Your task to perform on an android device: Show the shopping cart on amazon. Image 0: 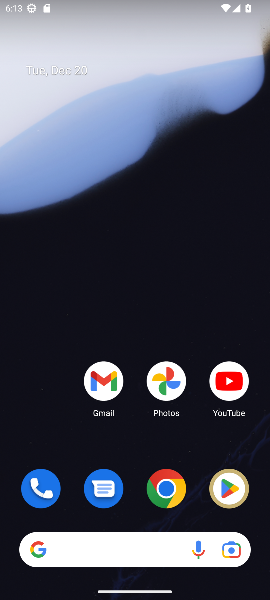
Step 0: press home button
Your task to perform on an android device: Show the shopping cart on amazon. Image 1: 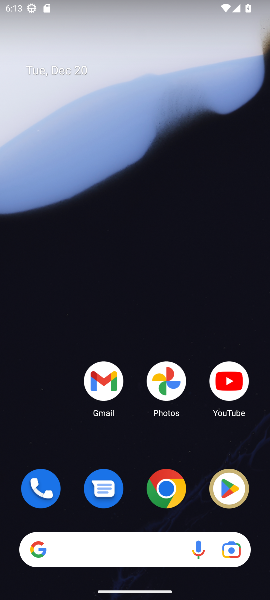
Step 1: drag from (49, 435) to (32, 39)
Your task to perform on an android device: Show the shopping cart on amazon. Image 2: 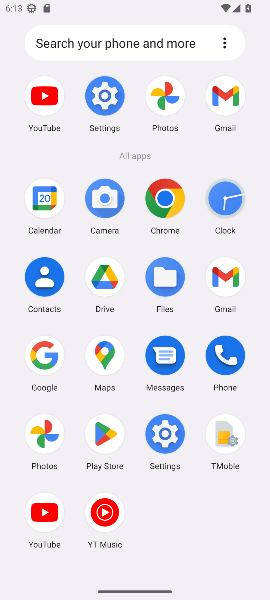
Step 2: click (34, 348)
Your task to perform on an android device: Show the shopping cart on amazon. Image 3: 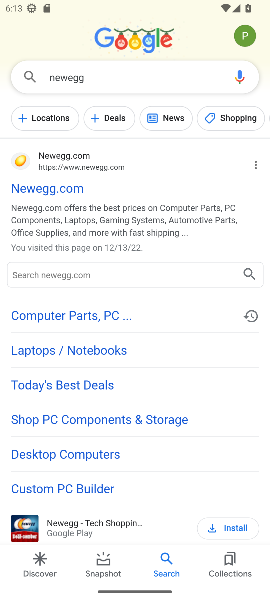
Step 3: click (118, 73)
Your task to perform on an android device: Show the shopping cart on amazon. Image 4: 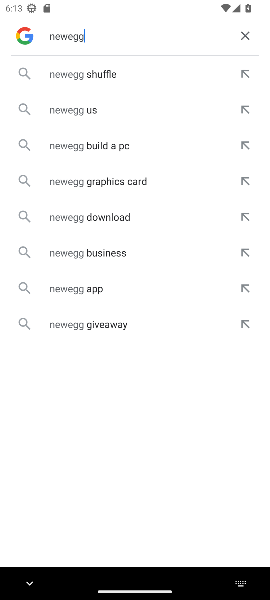
Step 4: click (240, 36)
Your task to perform on an android device: Show the shopping cart on amazon. Image 5: 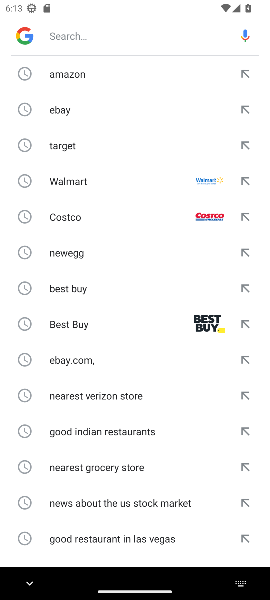
Step 5: type "amazon"
Your task to perform on an android device: Show the shopping cart on amazon. Image 6: 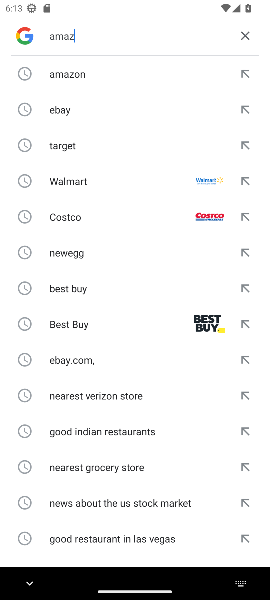
Step 6: press enter
Your task to perform on an android device: Show the shopping cart on amazon. Image 7: 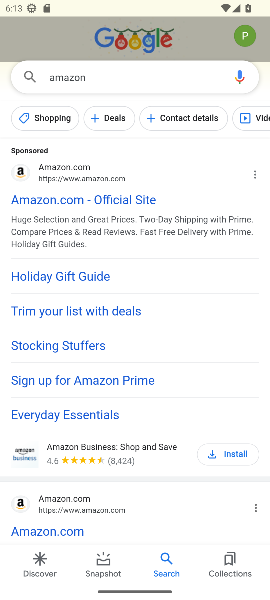
Step 7: click (116, 197)
Your task to perform on an android device: Show the shopping cart on amazon. Image 8: 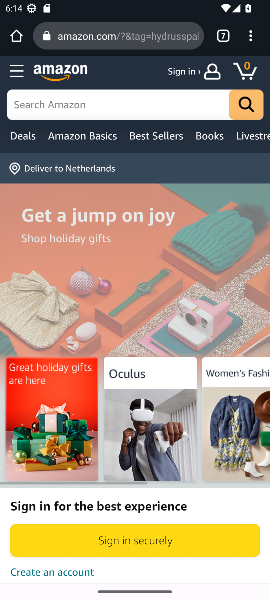
Step 8: click (241, 68)
Your task to perform on an android device: Show the shopping cart on amazon. Image 9: 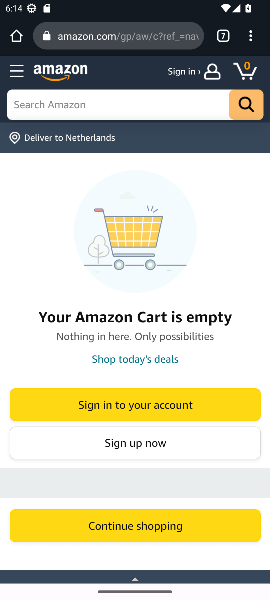
Step 9: task complete